Your task to perform on an android device: Open maps Image 0: 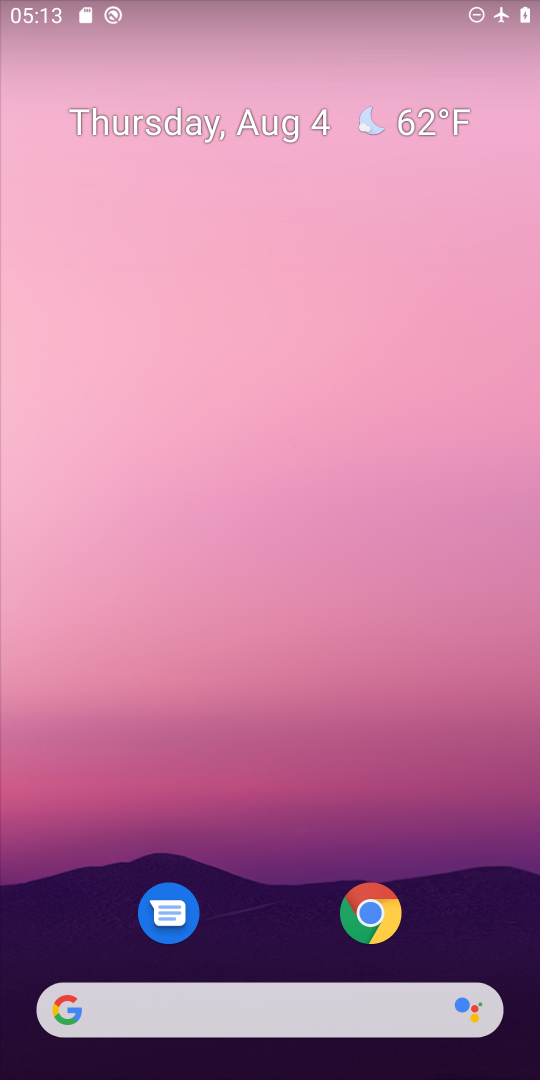
Step 0: drag from (413, 1000) to (361, 0)
Your task to perform on an android device: Open maps Image 1: 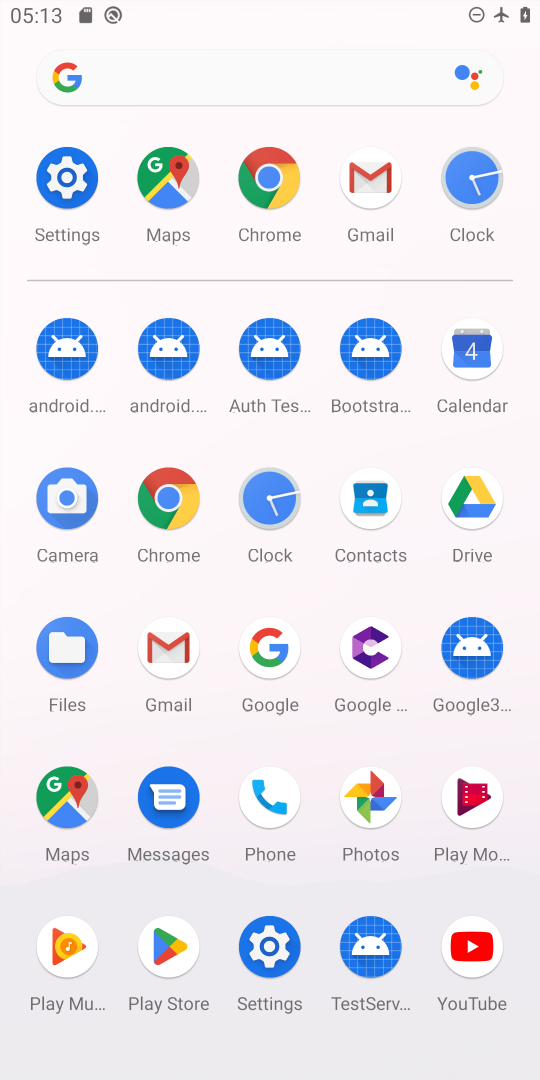
Step 1: click (48, 779)
Your task to perform on an android device: Open maps Image 2: 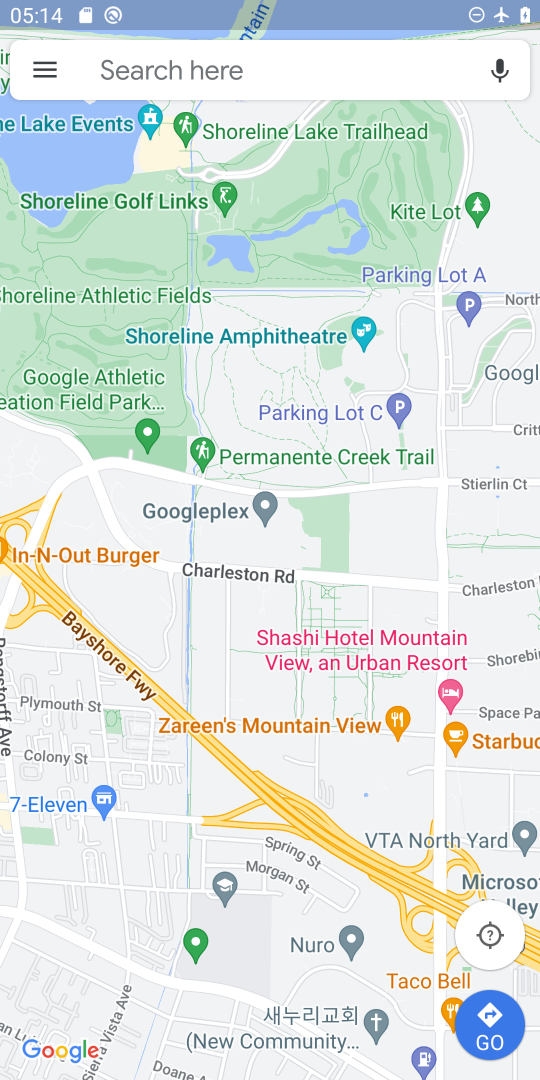
Step 2: task complete